Your task to perform on an android device: change notifications settings Image 0: 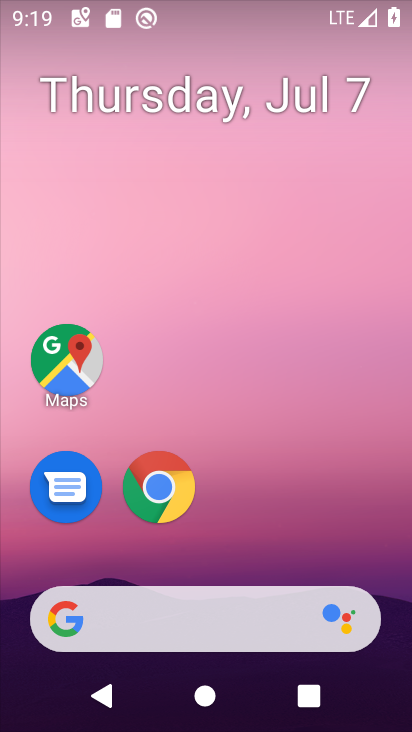
Step 0: drag from (353, 556) to (364, 139)
Your task to perform on an android device: change notifications settings Image 1: 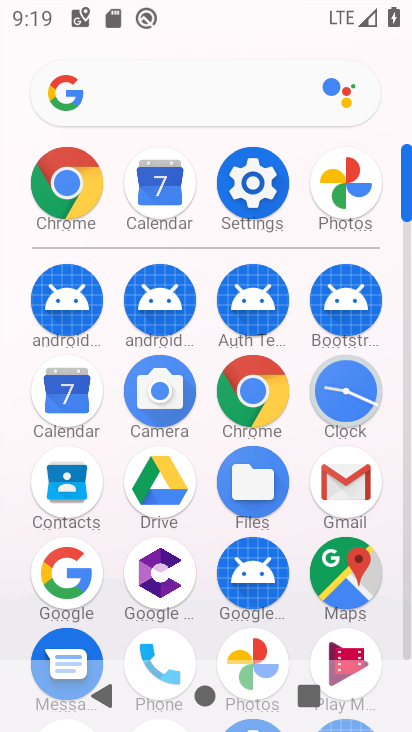
Step 1: click (265, 205)
Your task to perform on an android device: change notifications settings Image 2: 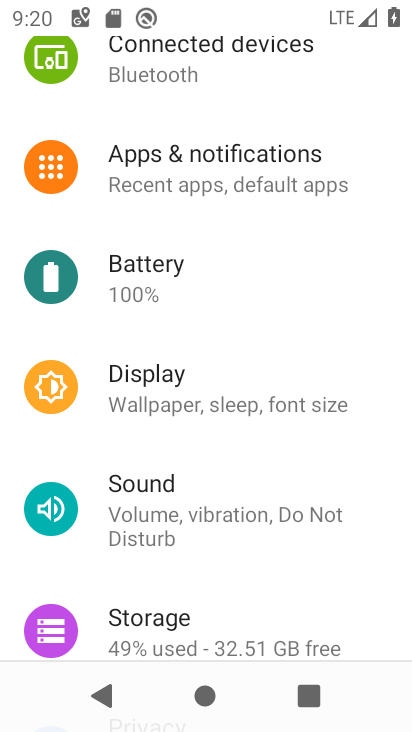
Step 2: drag from (347, 277) to (350, 386)
Your task to perform on an android device: change notifications settings Image 3: 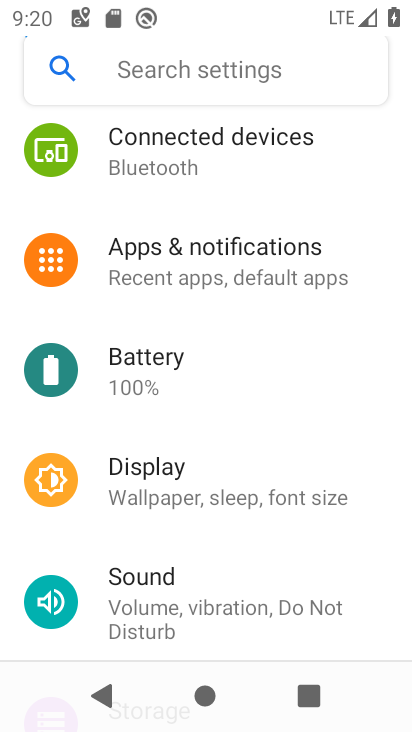
Step 3: drag from (370, 227) to (359, 418)
Your task to perform on an android device: change notifications settings Image 4: 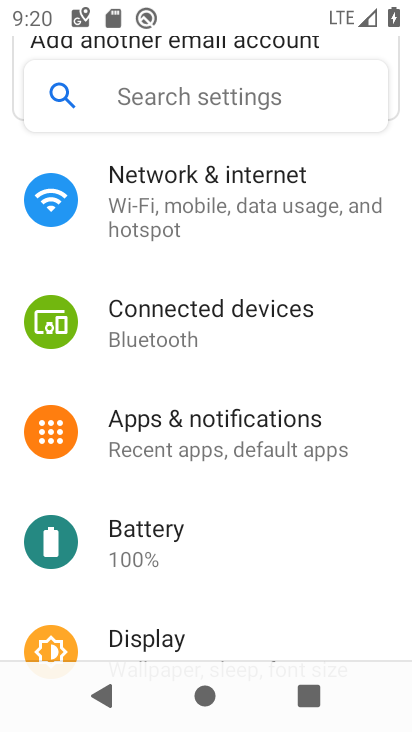
Step 4: drag from (346, 266) to (353, 446)
Your task to perform on an android device: change notifications settings Image 5: 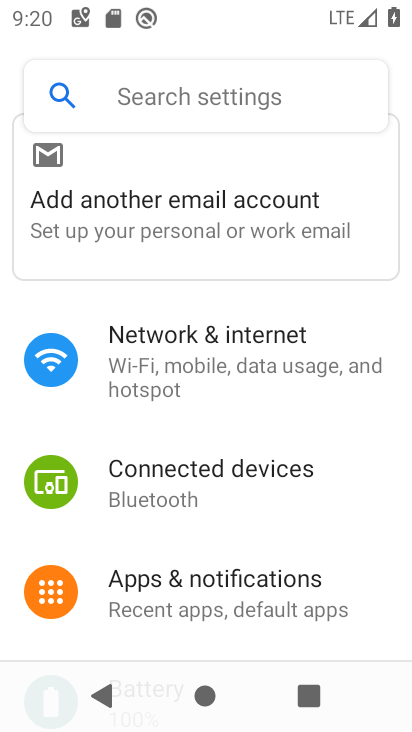
Step 5: click (301, 575)
Your task to perform on an android device: change notifications settings Image 6: 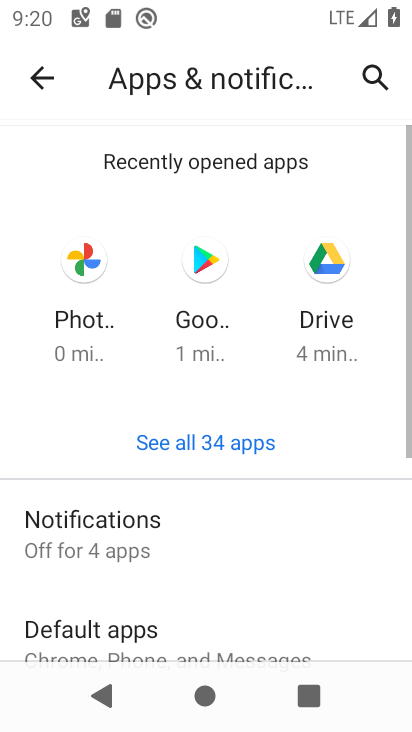
Step 6: click (142, 534)
Your task to perform on an android device: change notifications settings Image 7: 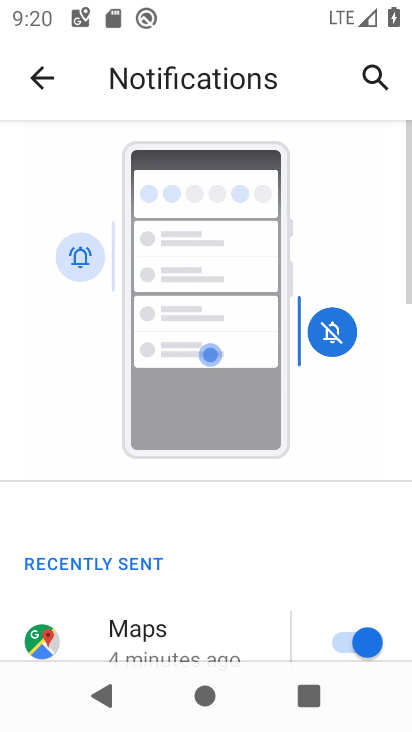
Step 7: drag from (264, 522) to (266, 335)
Your task to perform on an android device: change notifications settings Image 8: 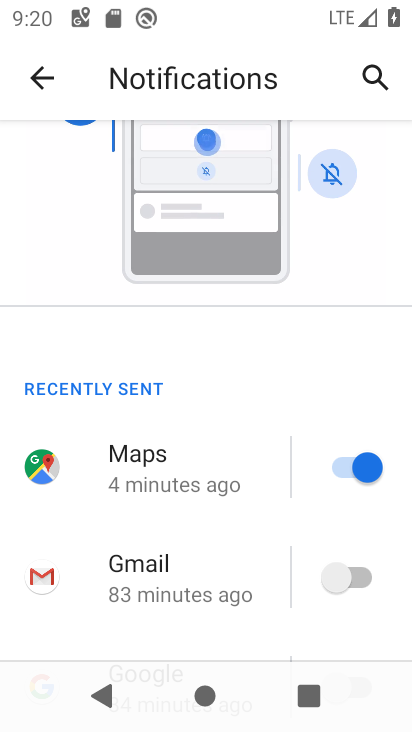
Step 8: drag from (250, 521) to (259, 383)
Your task to perform on an android device: change notifications settings Image 9: 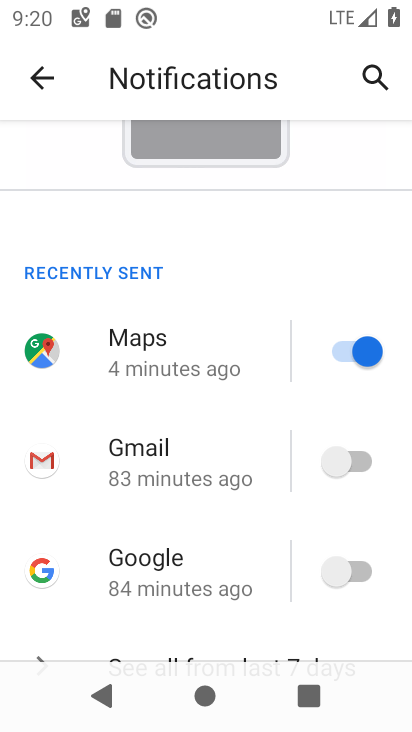
Step 9: drag from (265, 538) to (261, 407)
Your task to perform on an android device: change notifications settings Image 10: 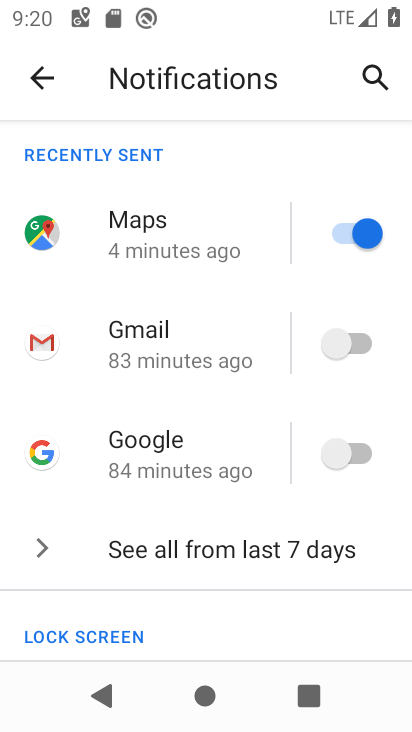
Step 10: click (365, 232)
Your task to perform on an android device: change notifications settings Image 11: 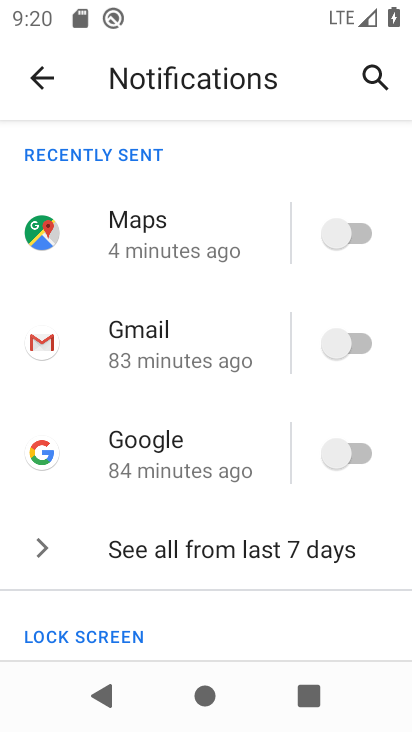
Step 11: task complete